Your task to perform on an android device: uninstall "PlayWell" Image 0: 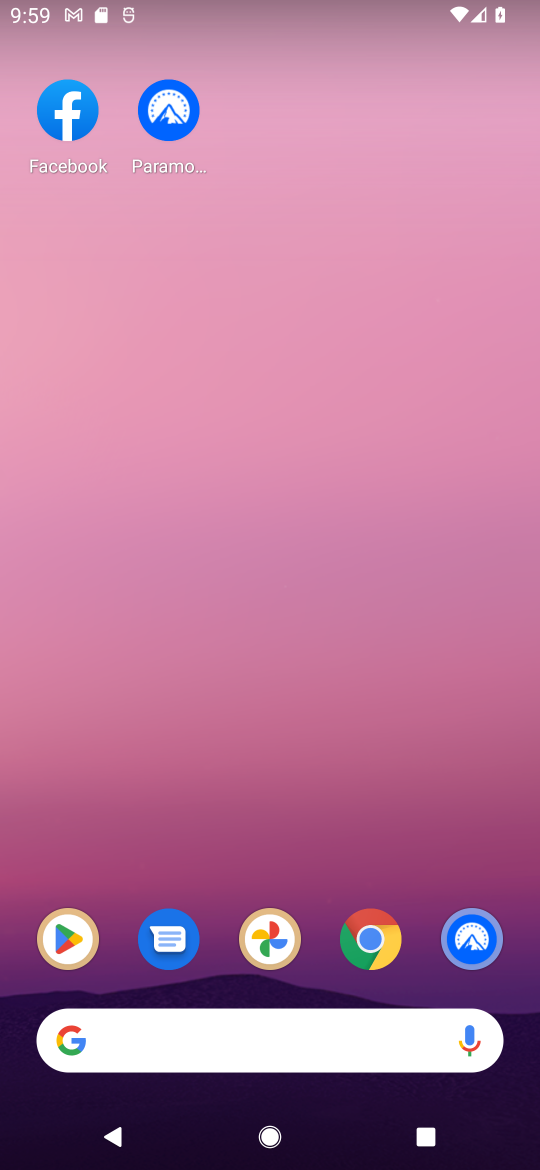
Step 0: click (83, 936)
Your task to perform on an android device: uninstall "PlayWell" Image 1: 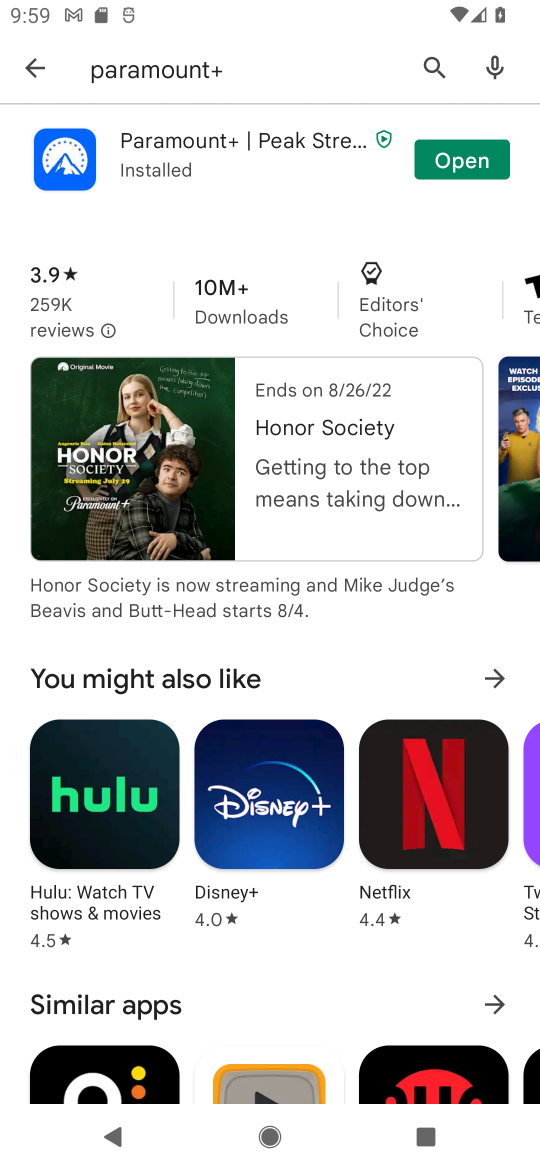
Step 1: click (431, 63)
Your task to perform on an android device: uninstall "PlayWell" Image 2: 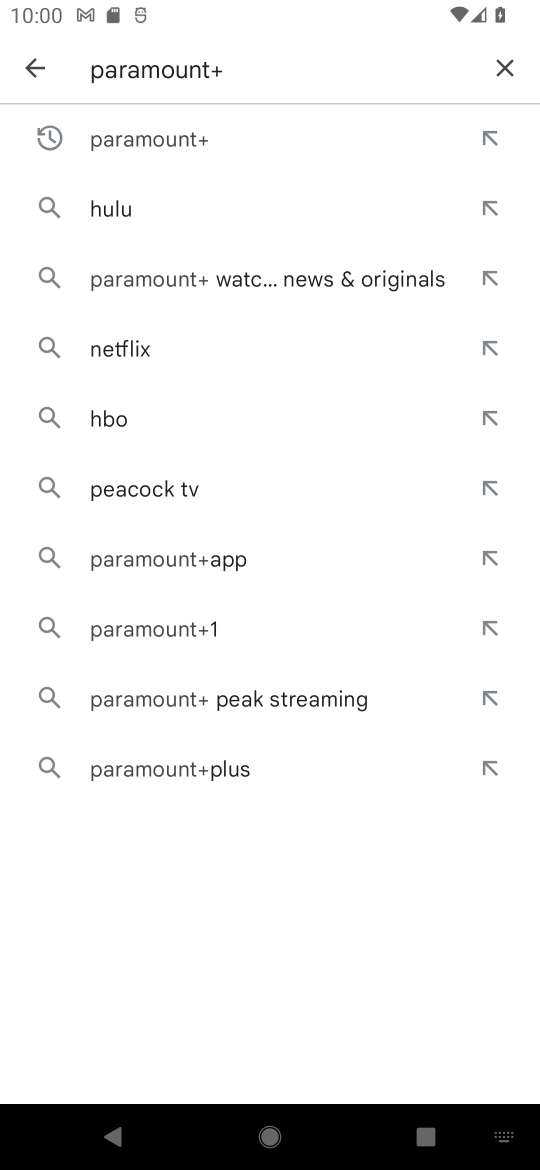
Step 2: click (501, 68)
Your task to perform on an android device: uninstall "PlayWell" Image 3: 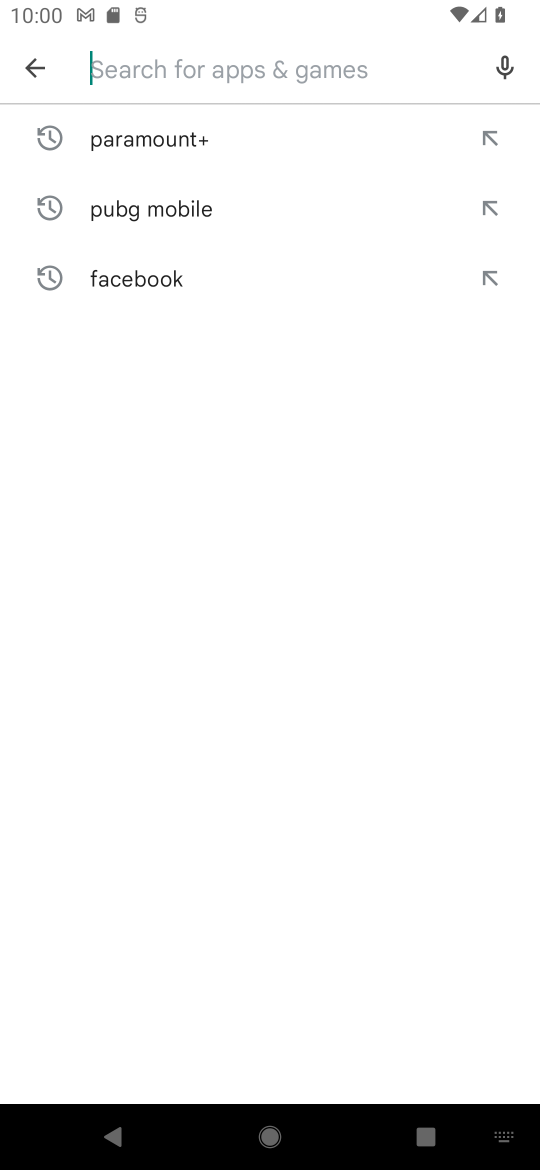
Step 3: type "playwell"
Your task to perform on an android device: uninstall "PlayWell" Image 4: 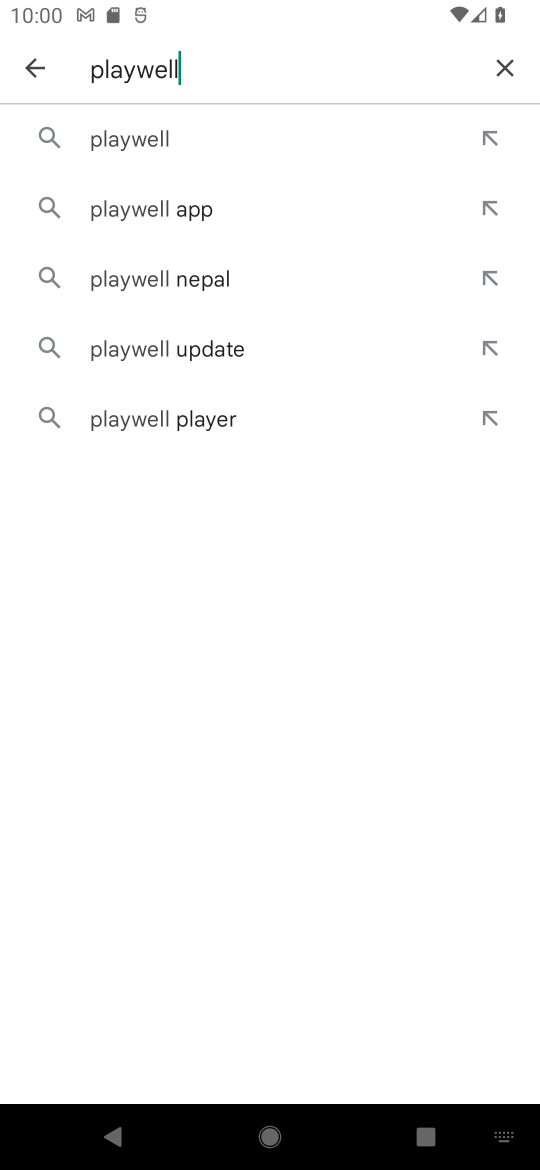
Step 4: click (163, 136)
Your task to perform on an android device: uninstall "PlayWell" Image 5: 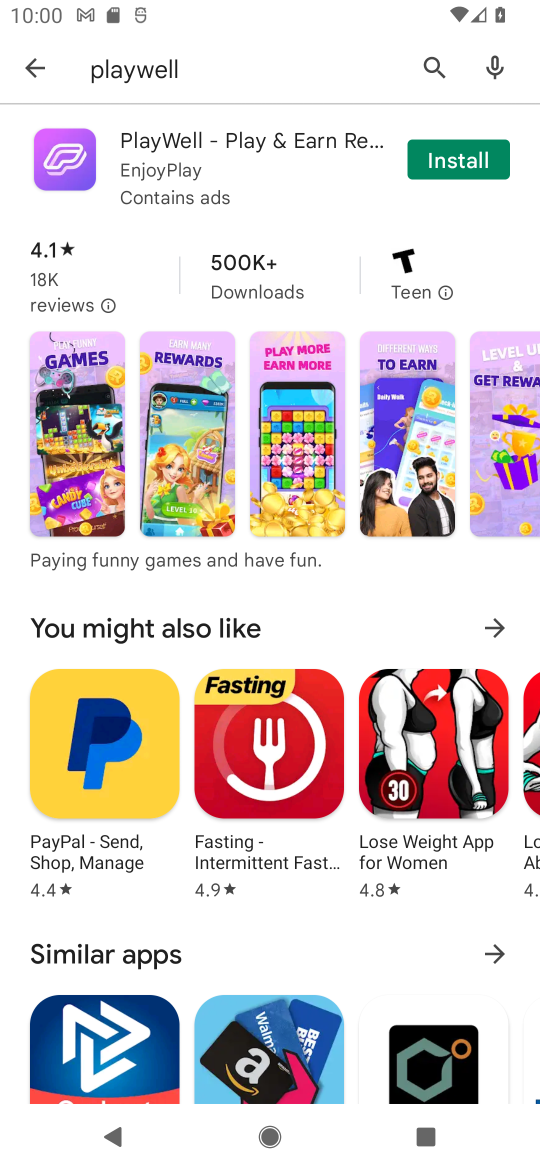
Step 5: task complete